Your task to perform on an android device: Open privacy settings Image 0: 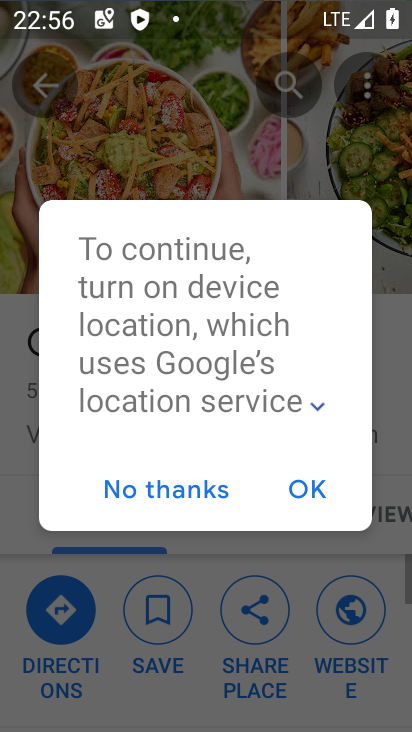
Step 0: press home button
Your task to perform on an android device: Open privacy settings Image 1: 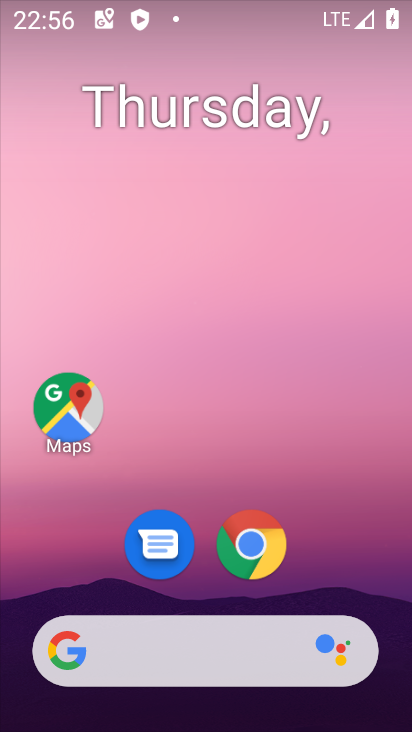
Step 1: drag from (340, 561) to (279, 320)
Your task to perform on an android device: Open privacy settings Image 2: 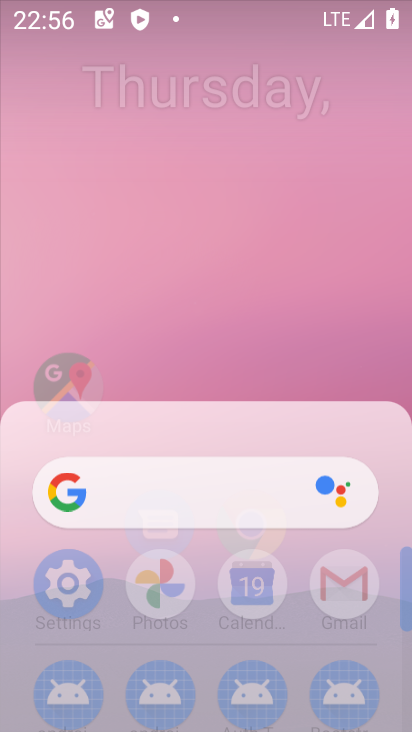
Step 2: click (272, 229)
Your task to perform on an android device: Open privacy settings Image 3: 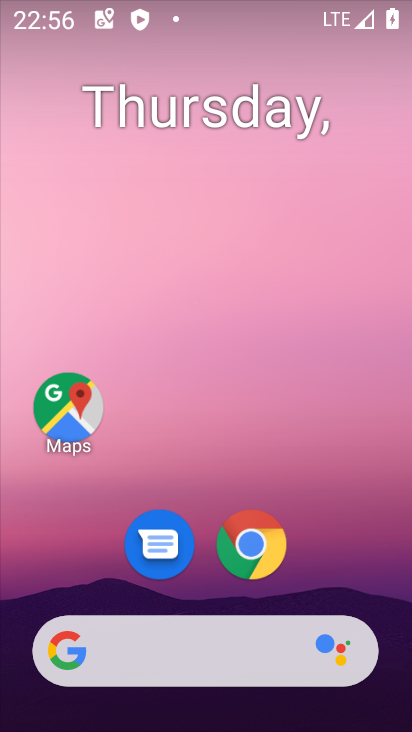
Step 3: drag from (324, 588) to (294, 171)
Your task to perform on an android device: Open privacy settings Image 4: 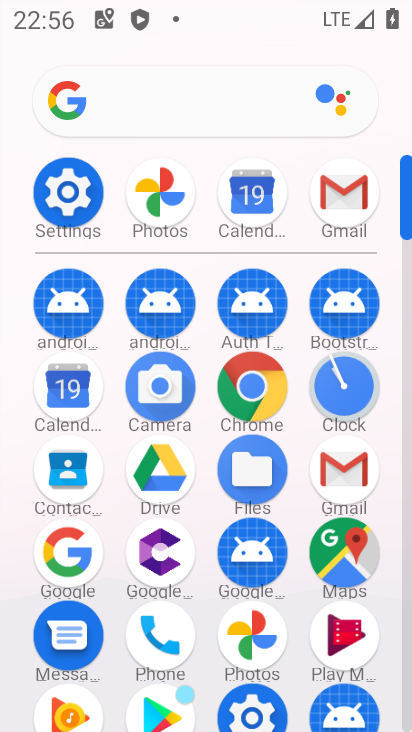
Step 4: click (258, 708)
Your task to perform on an android device: Open privacy settings Image 5: 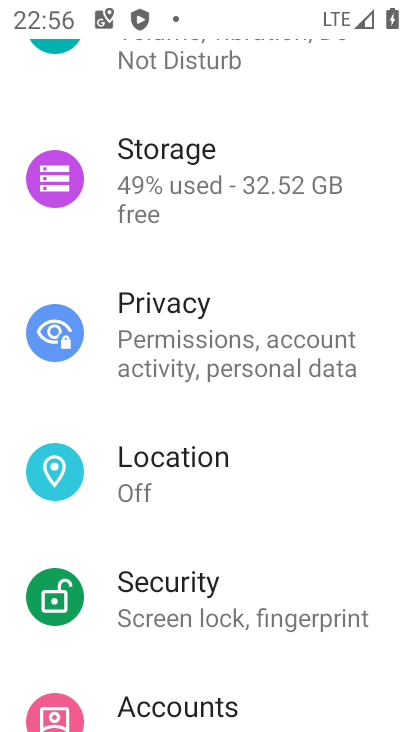
Step 5: click (188, 353)
Your task to perform on an android device: Open privacy settings Image 6: 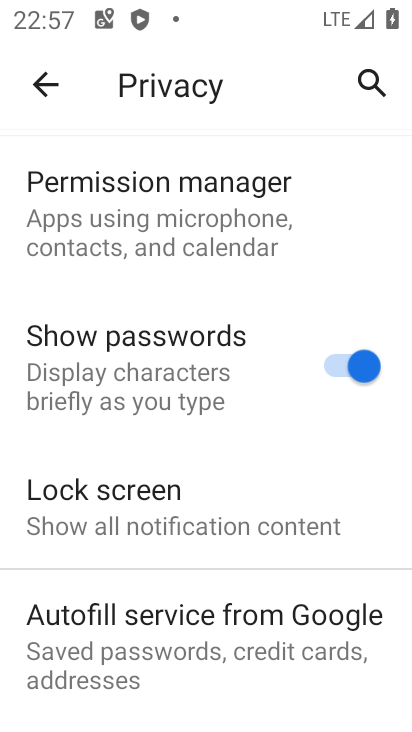
Step 6: task complete